Your task to perform on an android device: Open internet settings Image 0: 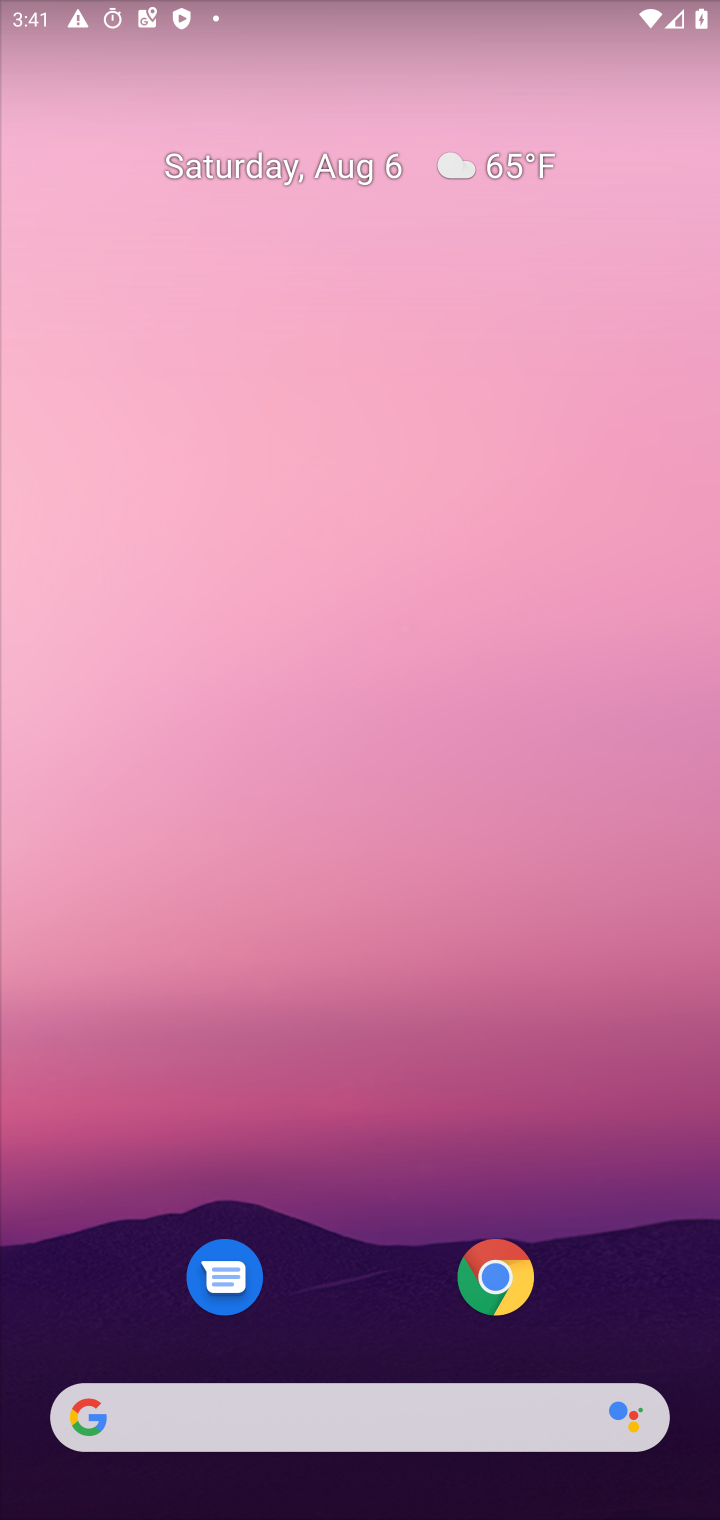
Step 0: drag from (368, 1421) to (393, 230)
Your task to perform on an android device: Open internet settings Image 1: 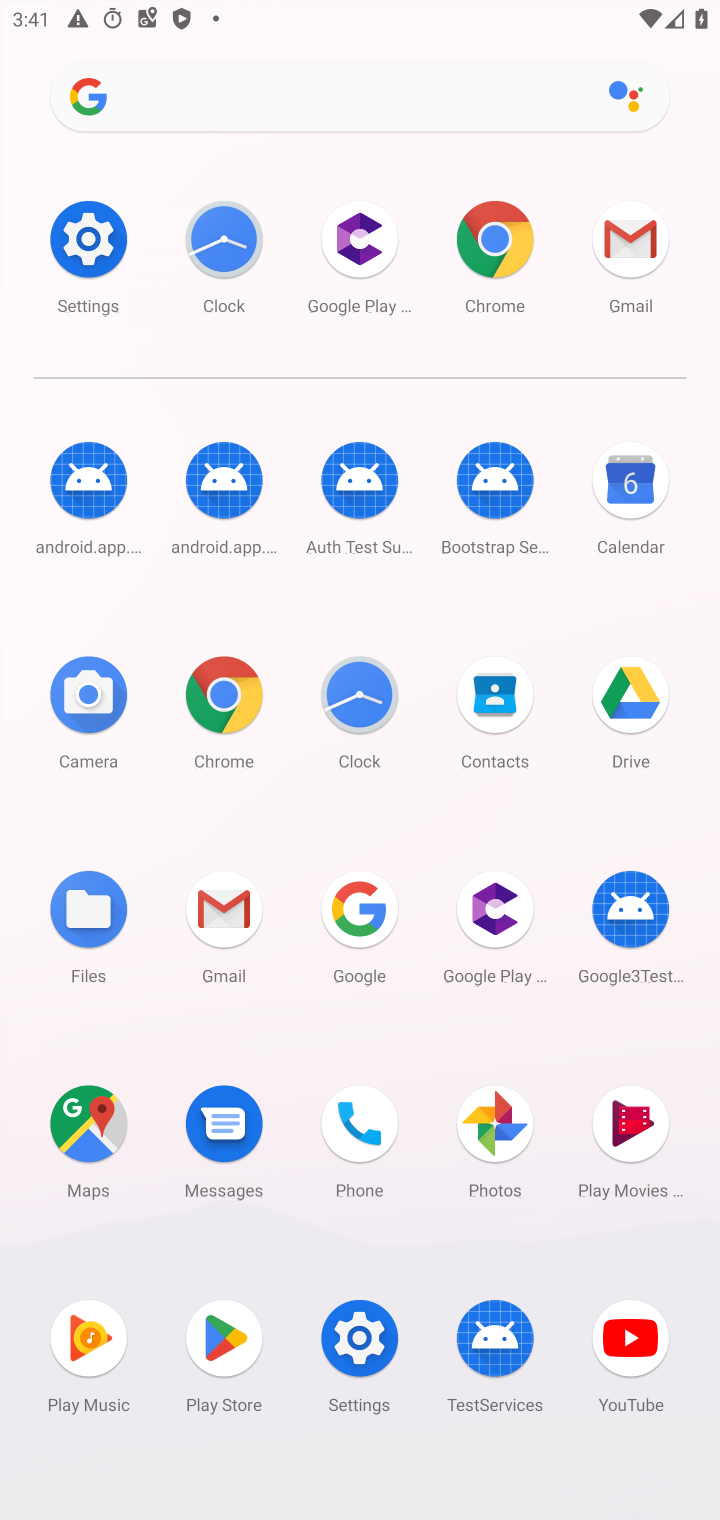
Step 1: click (87, 237)
Your task to perform on an android device: Open internet settings Image 2: 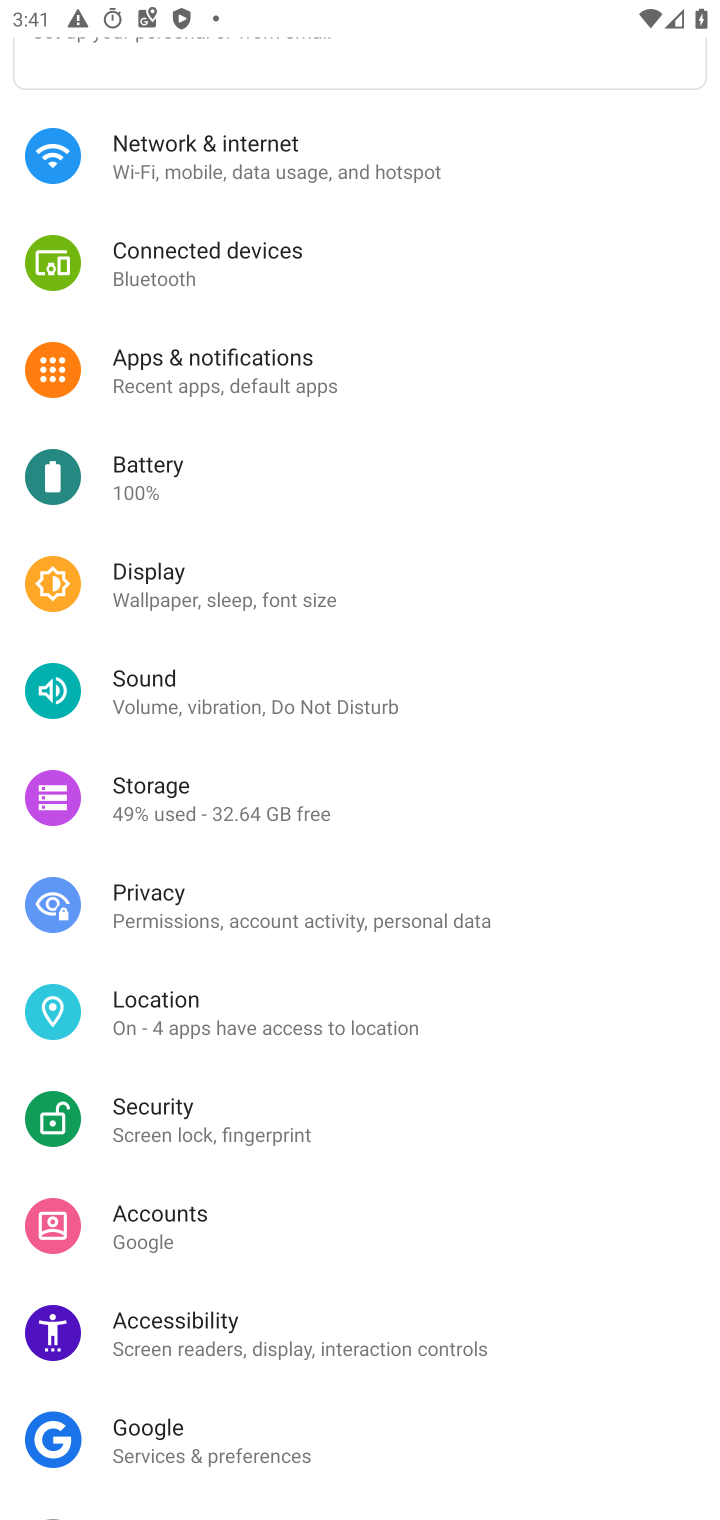
Step 2: click (225, 145)
Your task to perform on an android device: Open internet settings Image 3: 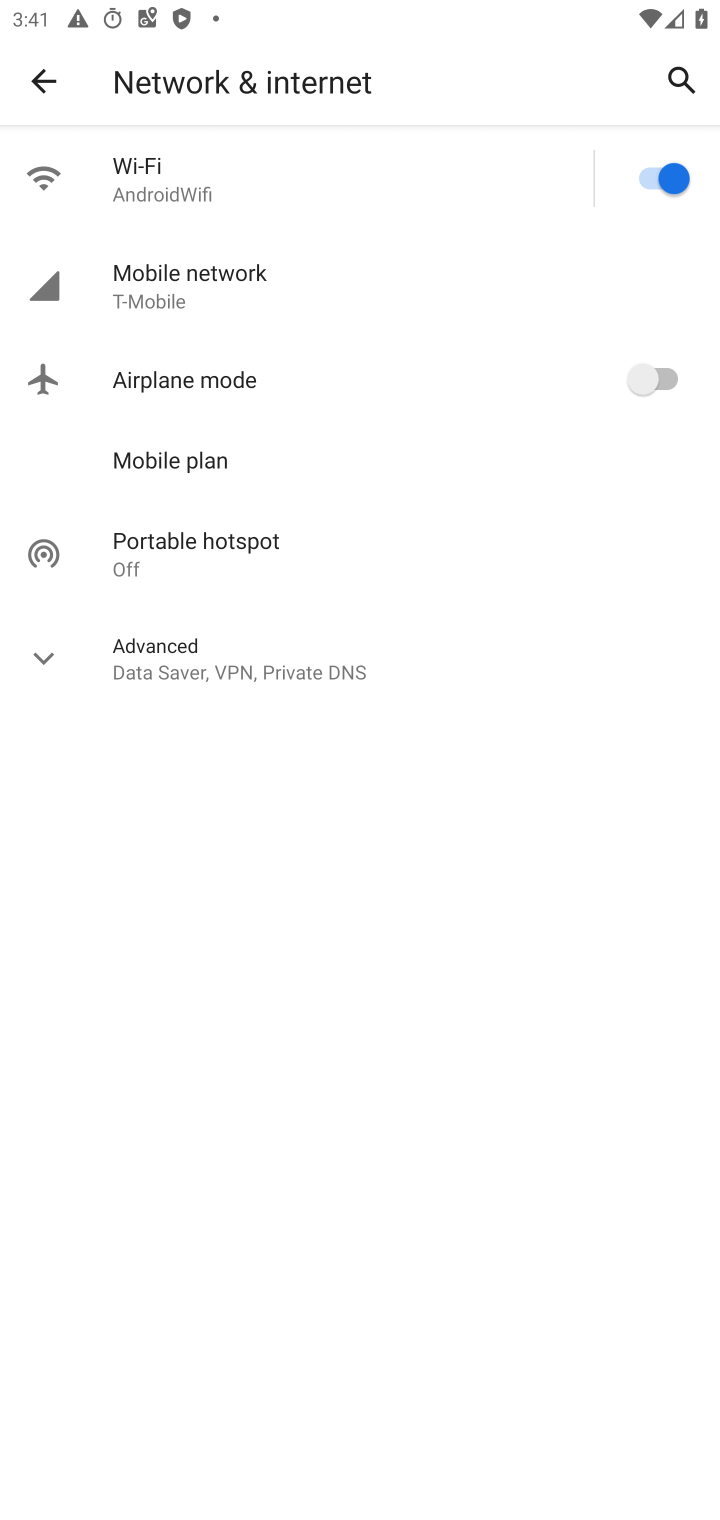
Step 3: task complete